Your task to perform on an android device: Do I have any events this weekend? Image 0: 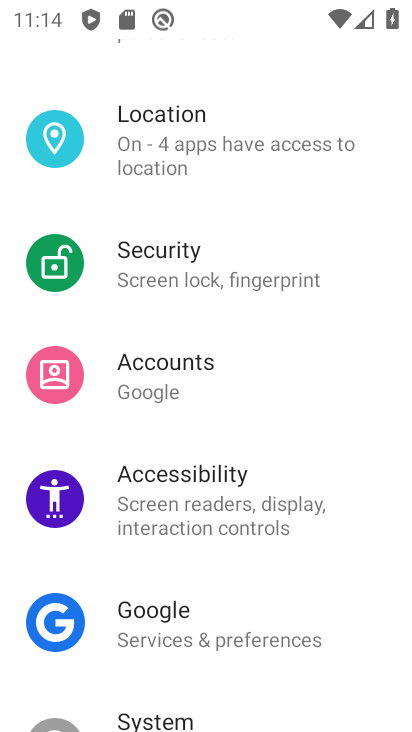
Step 0: press home button
Your task to perform on an android device: Do I have any events this weekend? Image 1: 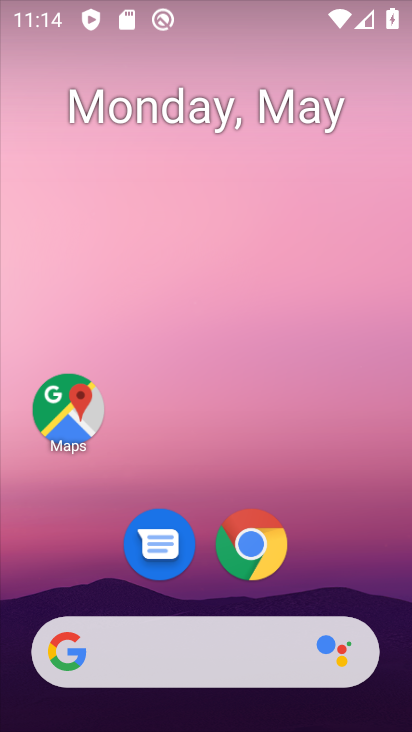
Step 1: drag from (399, 614) to (369, 148)
Your task to perform on an android device: Do I have any events this weekend? Image 2: 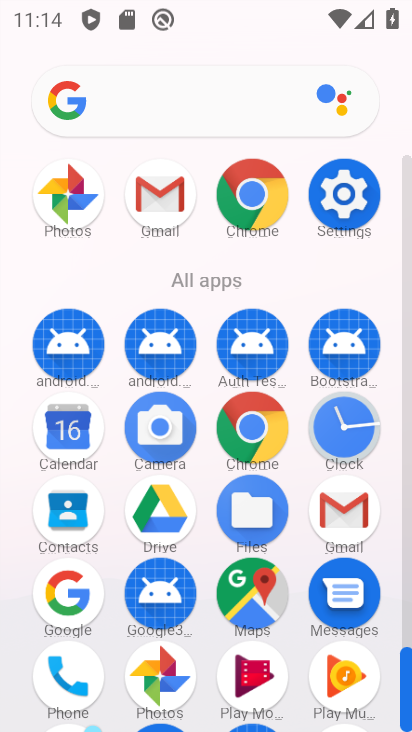
Step 2: click (83, 435)
Your task to perform on an android device: Do I have any events this weekend? Image 3: 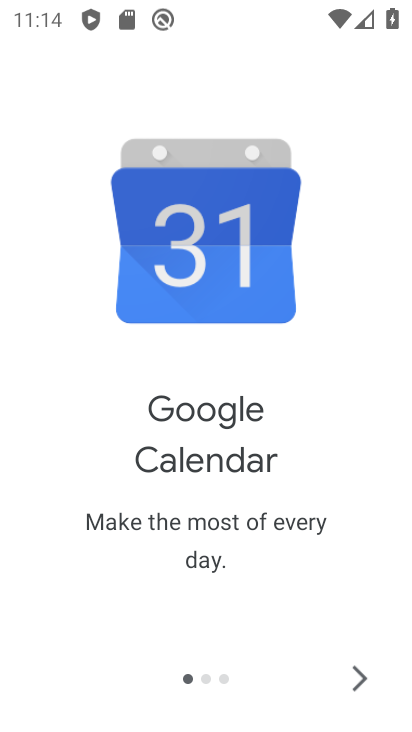
Step 3: click (354, 688)
Your task to perform on an android device: Do I have any events this weekend? Image 4: 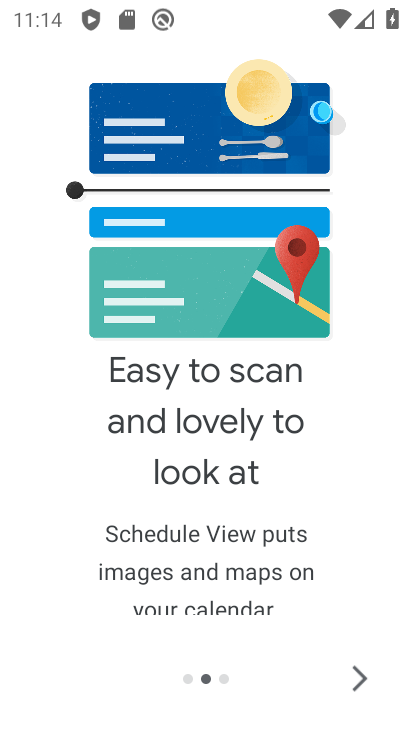
Step 4: click (354, 687)
Your task to perform on an android device: Do I have any events this weekend? Image 5: 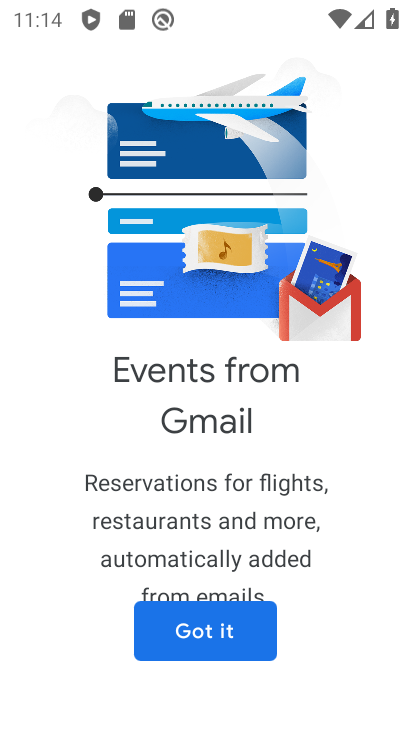
Step 5: click (199, 637)
Your task to perform on an android device: Do I have any events this weekend? Image 6: 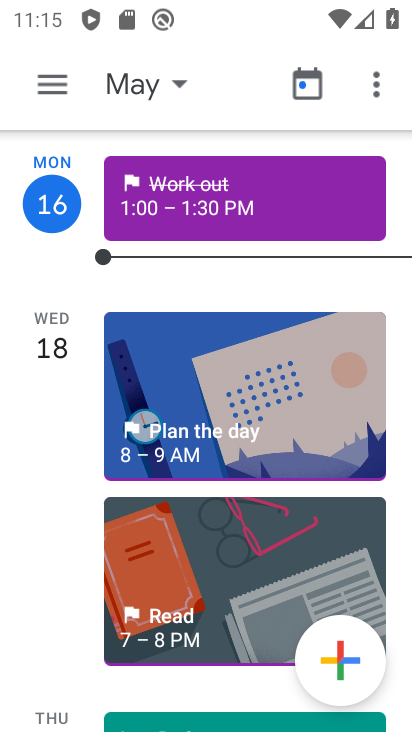
Step 6: task complete